Your task to perform on an android device: refresh tabs in the chrome app Image 0: 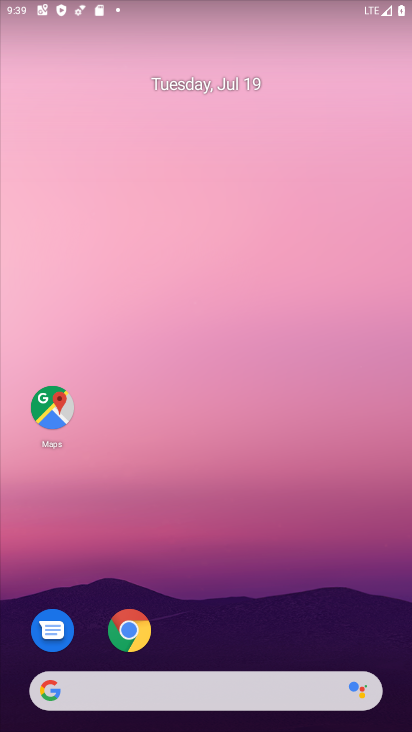
Step 0: drag from (240, 661) to (243, 216)
Your task to perform on an android device: refresh tabs in the chrome app Image 1: 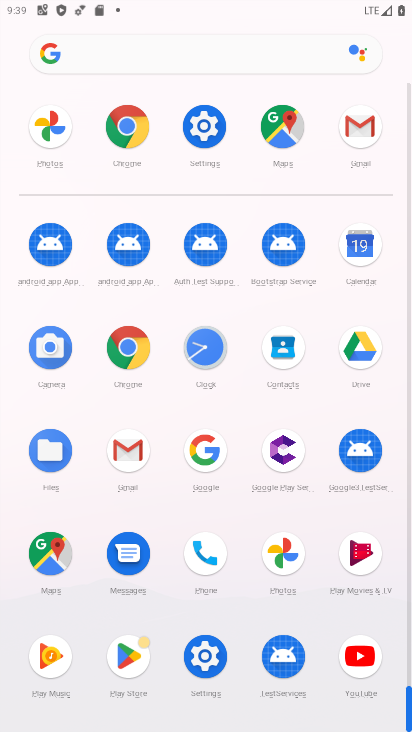
Step 1: click (132, 375)
Your task to perform on an android device: refresh tabs in the chrome app Image 2: 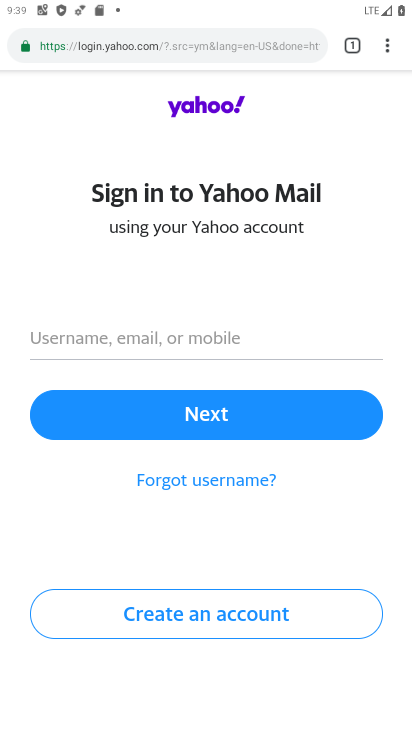
Step 2: click (393, 40)
Your task to perform on an android device: refresh tabs in the chrome app Image 3: 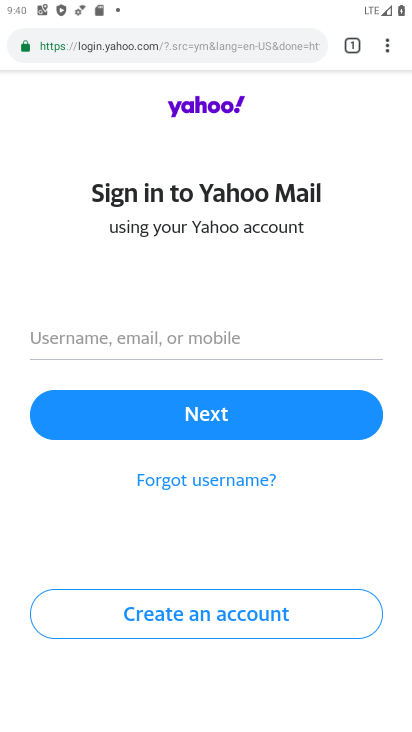
Step 3: click (387, 47)
Your task to perform on an android device: refresh tabs in the chrome app Image 4: 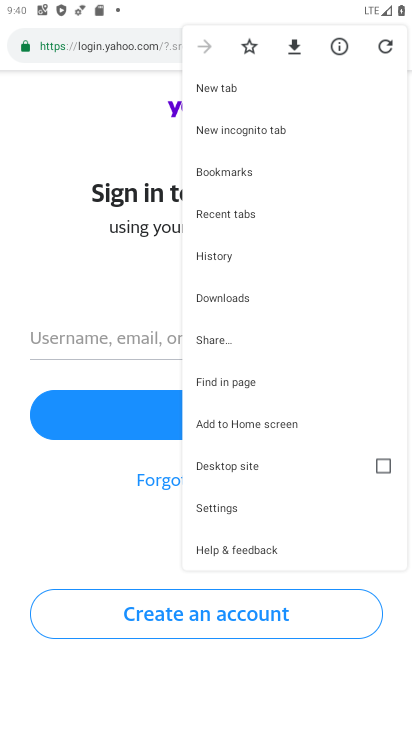
Step 4: click (384, 42)
Your task to perform on an android device: refresh tabs in the chrome app Image 5: 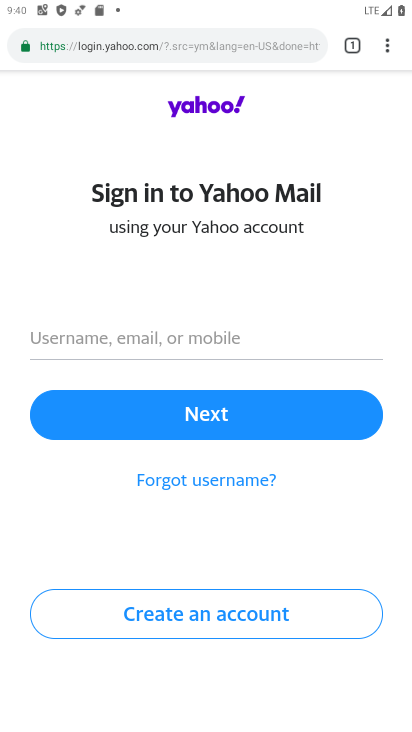
Step 5: task complete